Your task to perform on an android device: Turn on the flashlight Image 0: 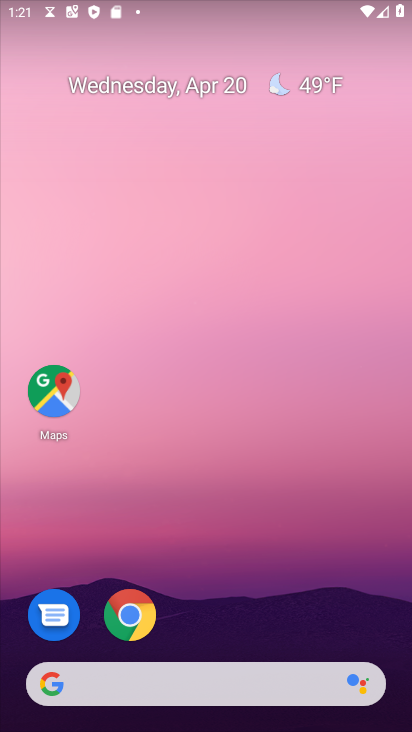
Step 0: drag from (141, 459) to (354, 120)
Your task to perform on an android device: Turn on the flashlight Image 1: 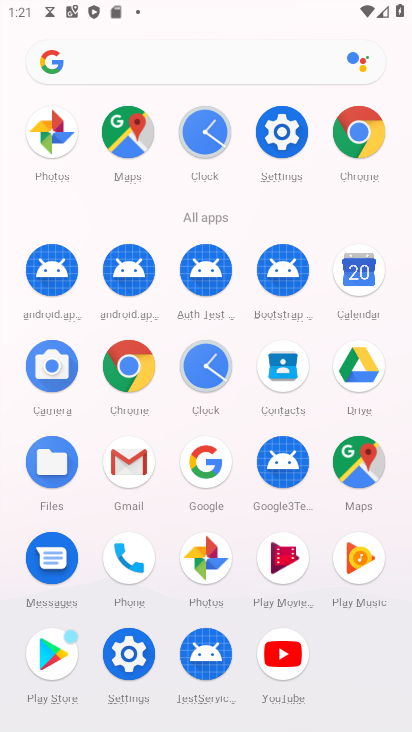
Step 1: click (261, 123)
Your task to perform on an android device: Turn on the flashlight Image 2: 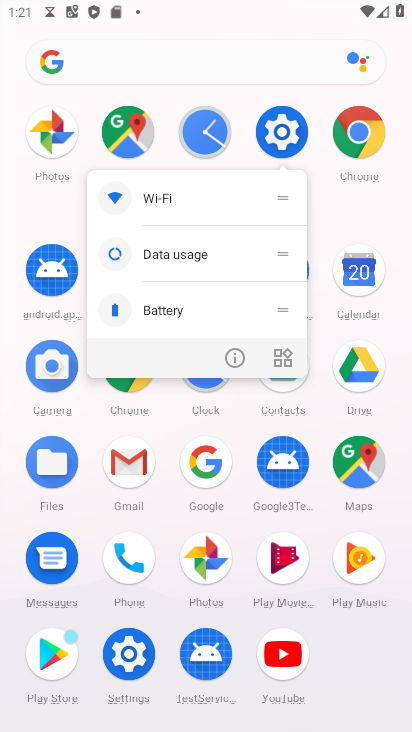
Step 2: click (261, 123)
Your task to perform on an android device: Turn on the flashlight Image 3: 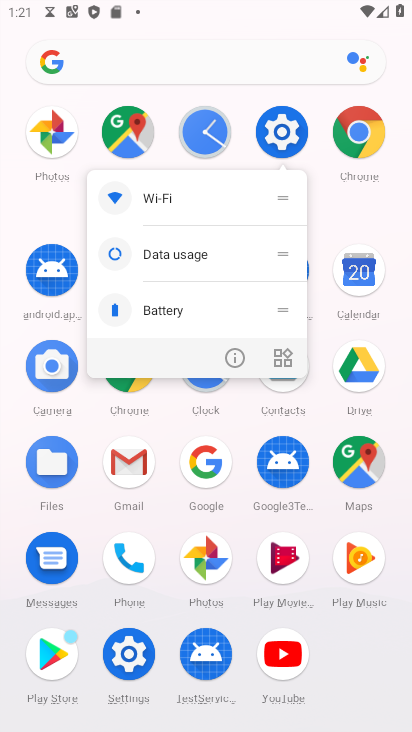
Step 3: click (280, 131)
Your task to perform on an android device: Turn on the flashlight Image 4: 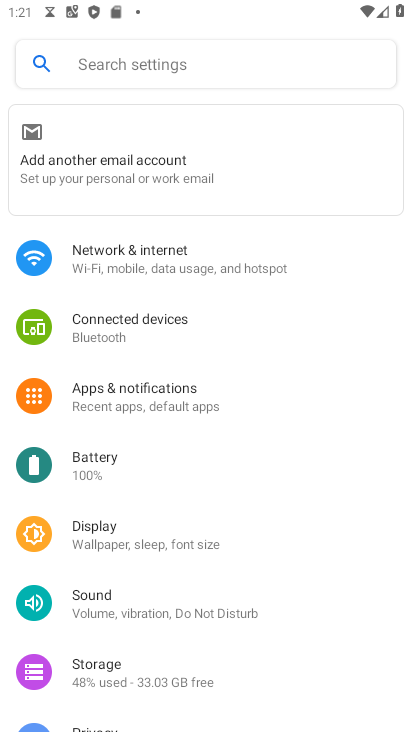
Step 4: task complete